Your task to perform on an android device: change keyboard looks Image 0: 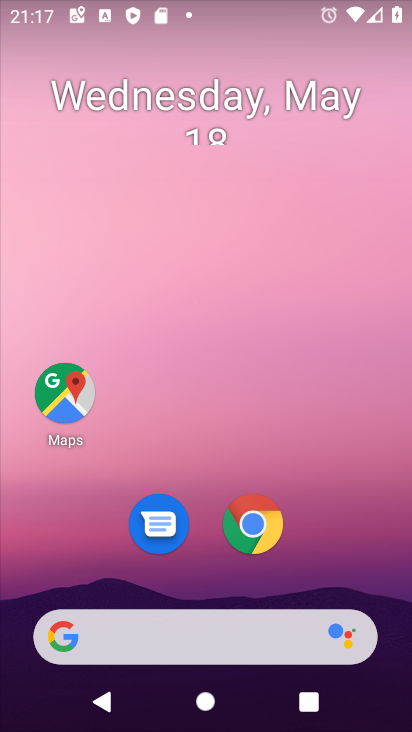
Step 0: drag from (338, 498) to (321, 91)
Your task to perform on an android device: change keyboard looks Image 1: 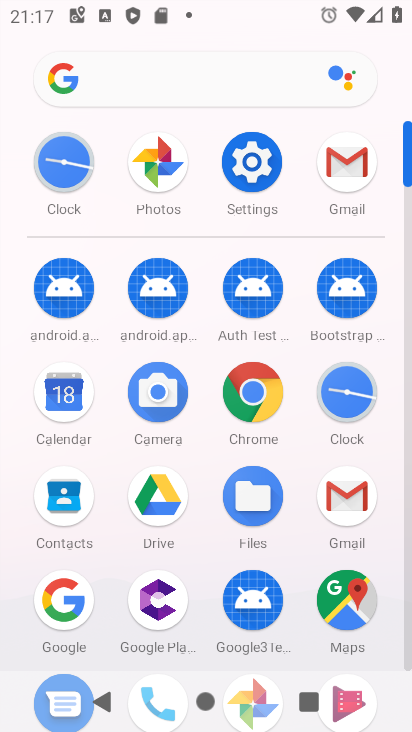
Step 1: click (247, 160)
Your task to perform on an android device: change keyboard looks Image 2: 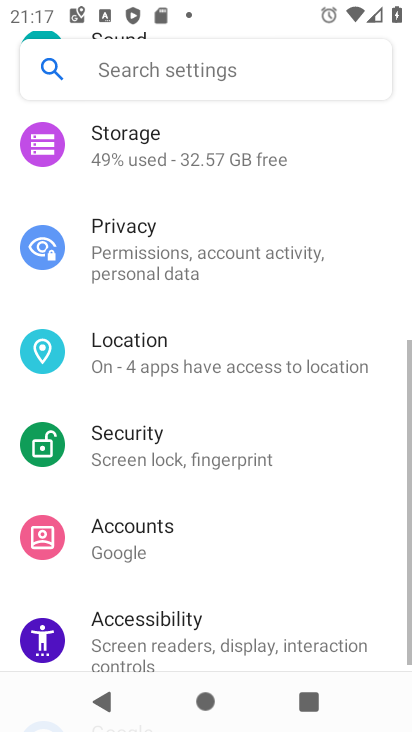
Step 2: drag from (294, 527) to (258, 139)
Your task to perform on an android device: change keyboard looks Image 3: 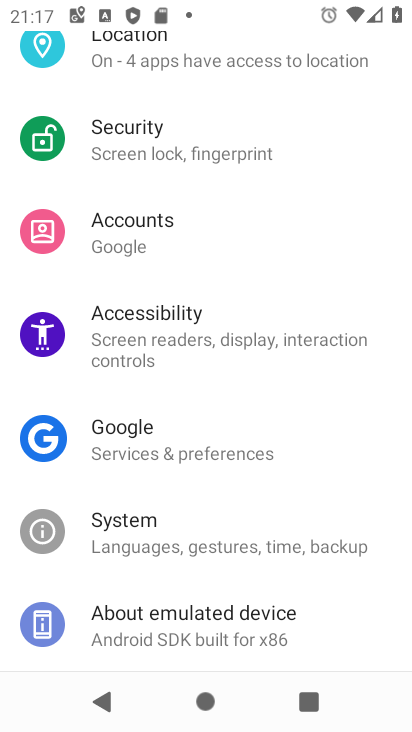
Step 3: click (199, 539)
Your task to perform on an android device: change keyboard looks Image 4: 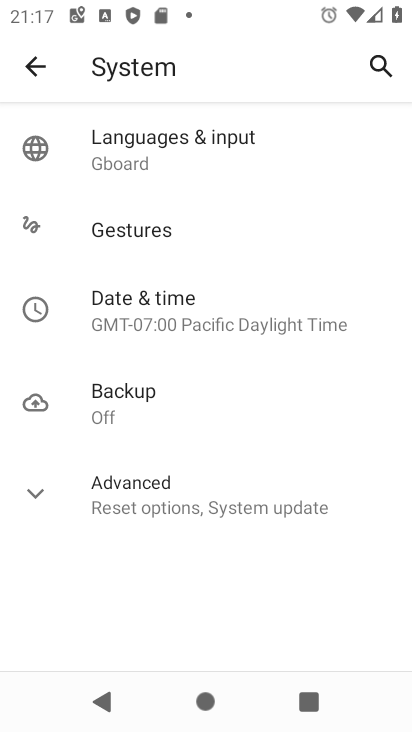
Step 4: click (167, 131)
Your task to perform on an android device: change keyboard looks Image 5: 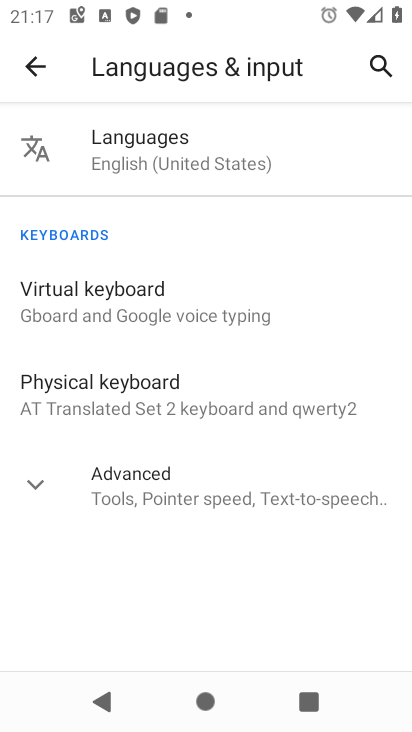
Step 5: click (109, 302)
Your task to perform on an android device: change keyboard looks Image 6: 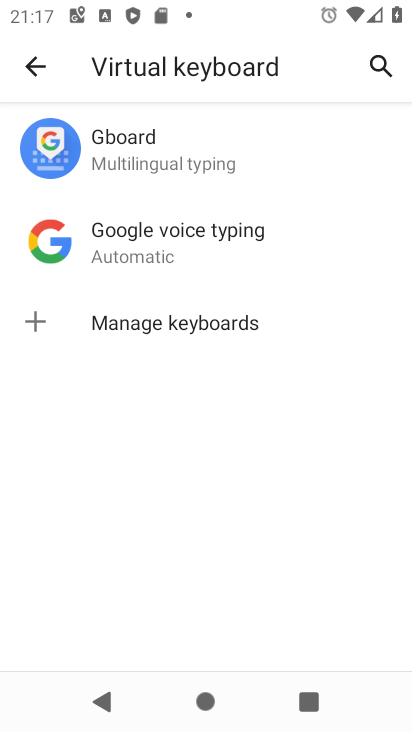
Step 6: click (135, 148)
Your task to perform on an android device: change keyboard looks Image 7: 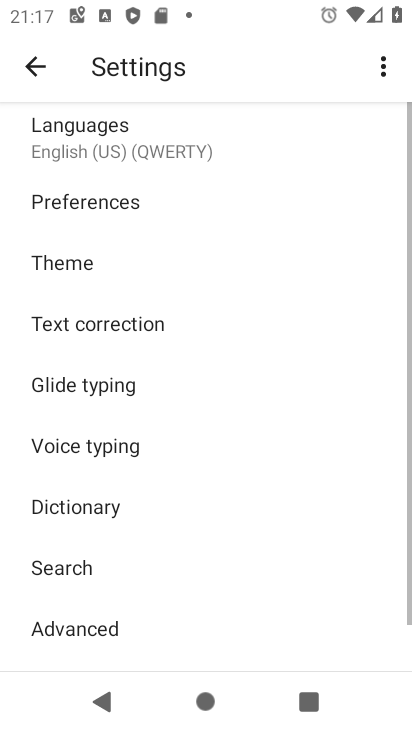
Step 7: click (79, 259)
Your task to perform on an android device: change keyboard looks Image 8: 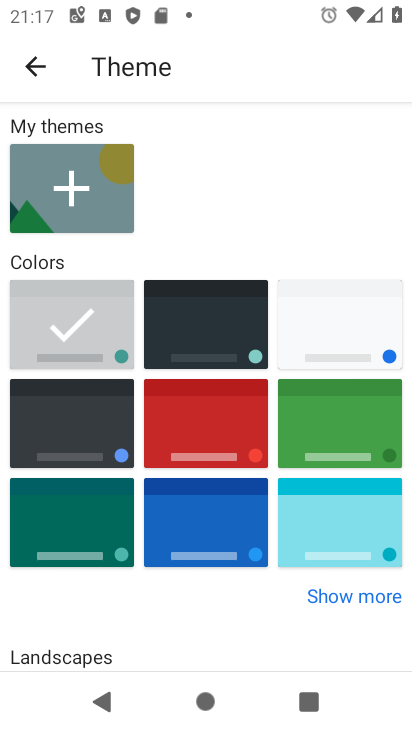
Step 8: click (205, 405)
Your task to perform on an android device: change keyboard looks Image 9: 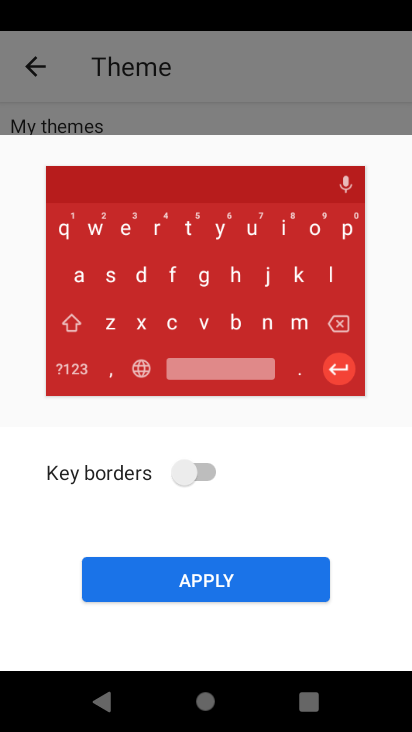
Step 9: click (200, 468)
Your task to perform on an android device: change keyboard looks Image 10: 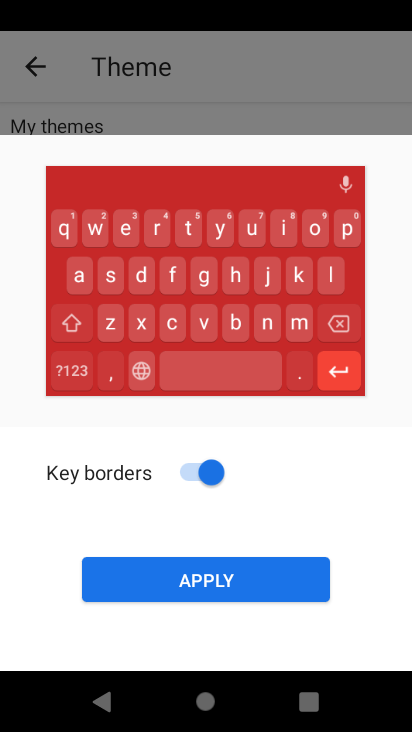
Step 10: click (215, 579)
Your task to perform on an android device: change keyboard looks Image 11: 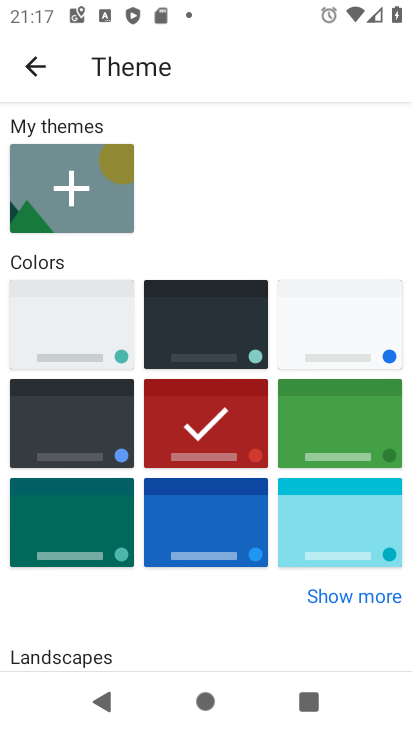
Step 11: task complete